Your task to perform on an android device: check google app version Image 0: 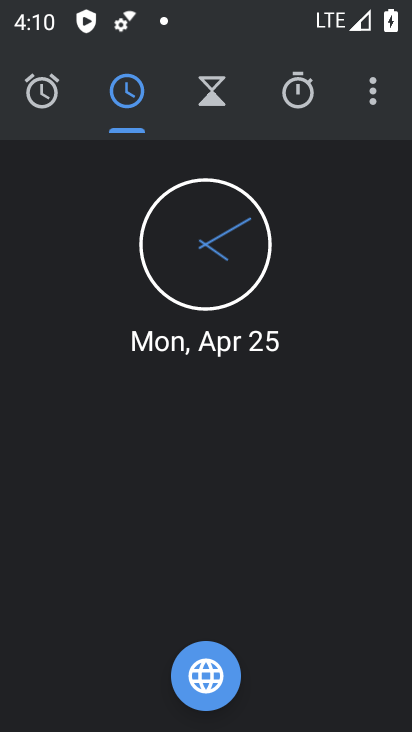
Step 0: press home button
Your task to perform on an android device: check google app version Image 1: 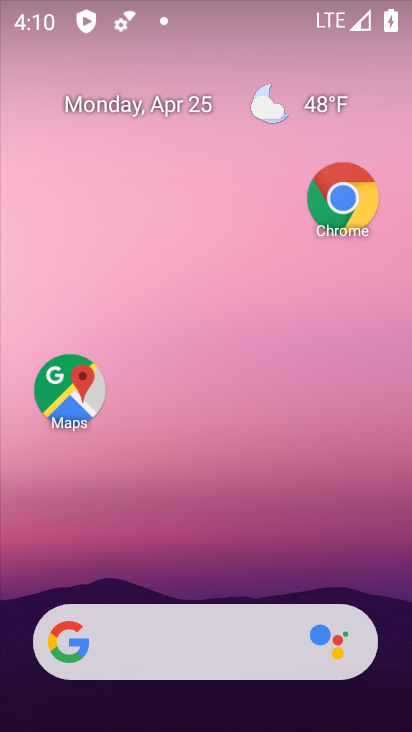
Step 1: drag from (180, 670) to (308, 126)
Your task to perform on an android device: check google app version Image 2: 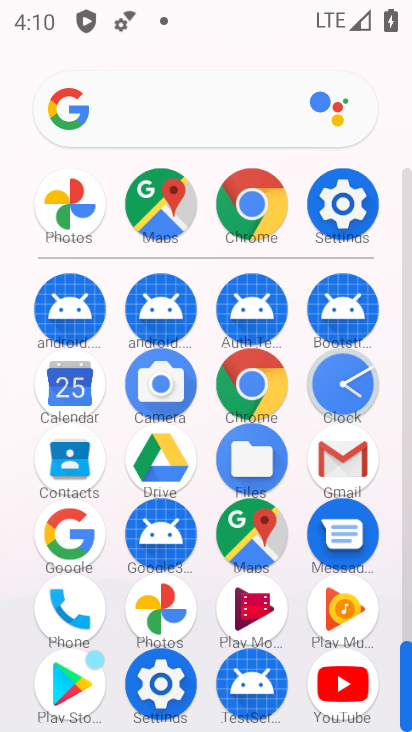
Step 2: drag from (76, 531) to (165, 396)
Your task to perform on an android device: check google app version Image 3: 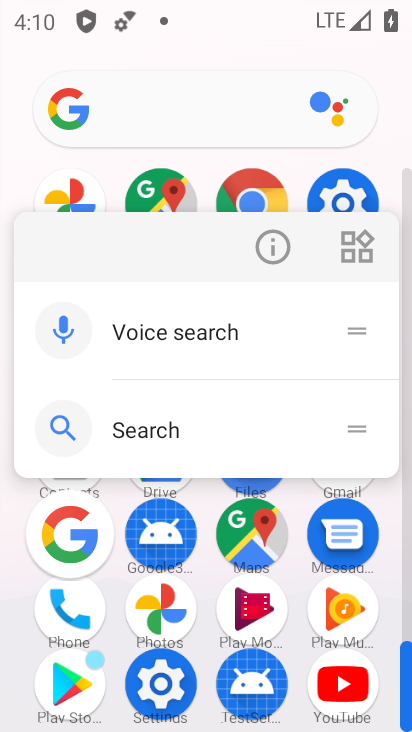
Step 3: click (271, 236)
Your task to perform on an android device: check google app version Image 4: 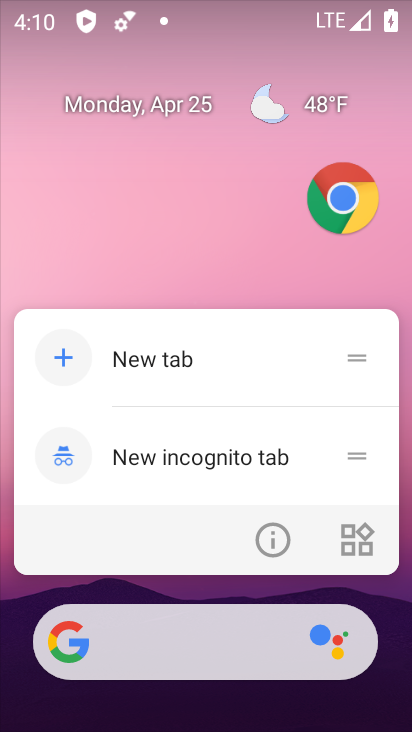
Step 4: click (215, 229)
Your task to perform on an android device: check google app version Image 5: 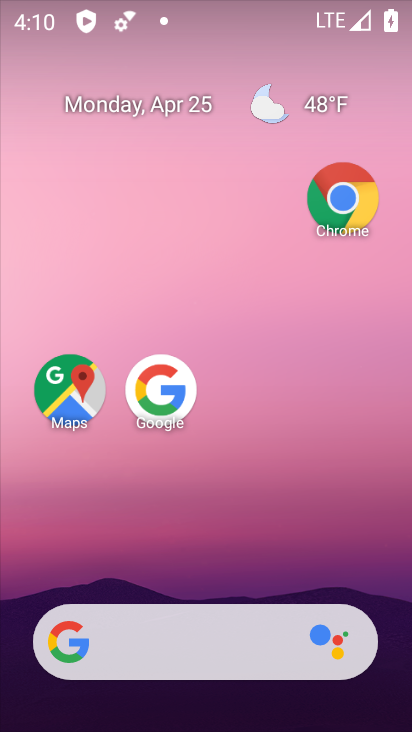
Step 5: click (162, 387)
Your task to perform on an android device: check google app version Image 6: 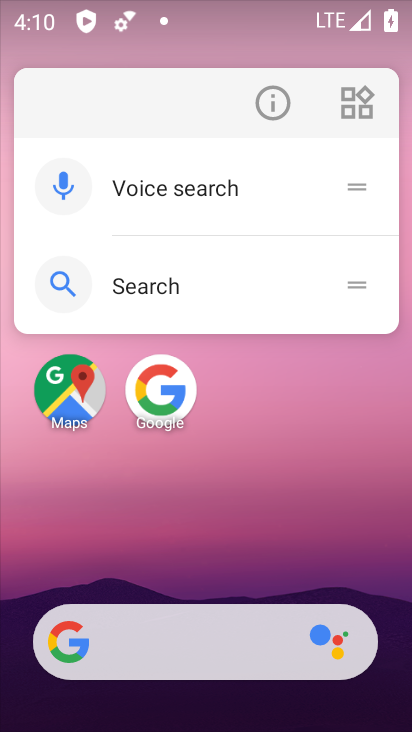
Step 6: click (281, 105)
Your task to perform on an android device: check google app version Image 7: 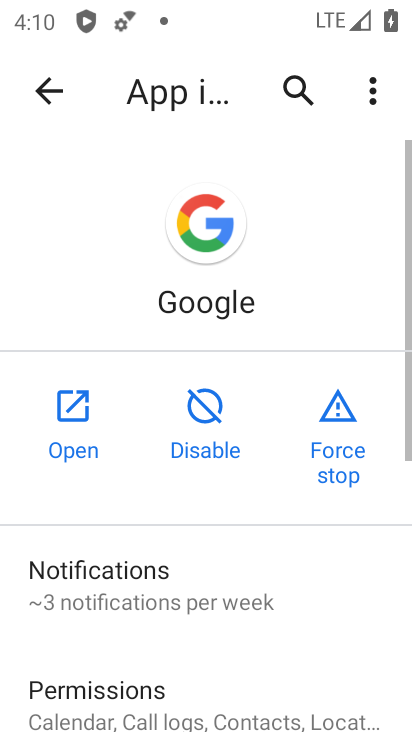
Step 7: drag from (205, 615) to (333, 73)
Your task to perform on an android device: check google app version Image 8: 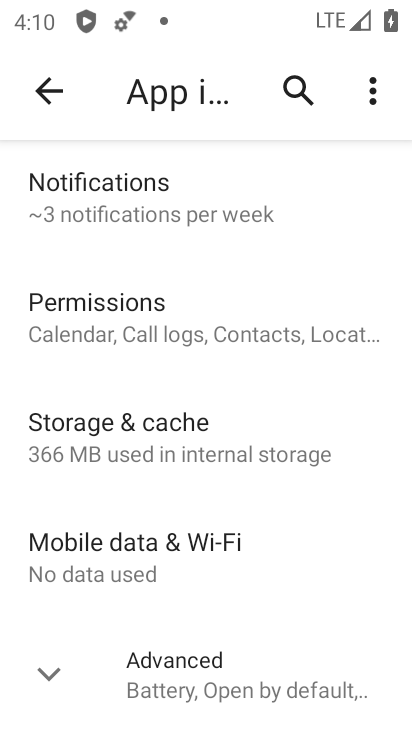
Step 8: click (138, 666)
Your task to perform on an android device: check google app version Image 9: 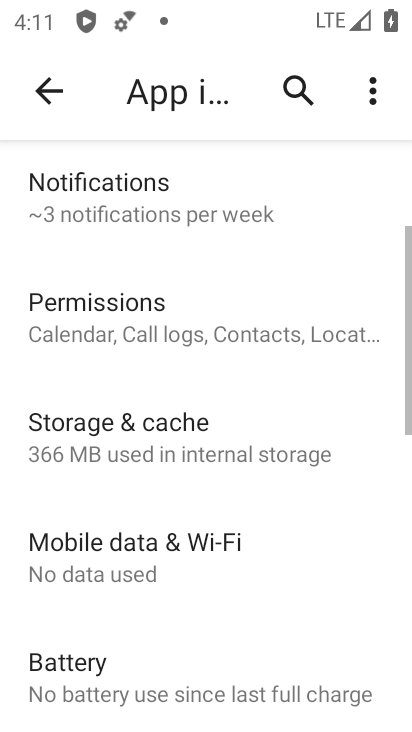
Step 9: task complete